Your task to perform on an android device: allow cookies in the chrome app Image 0: 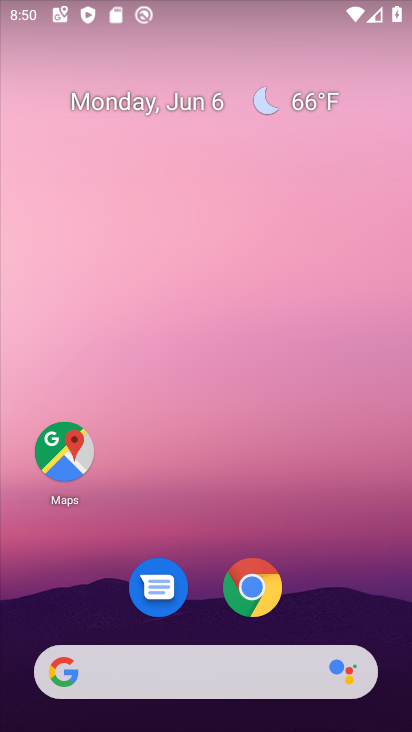
Step 0: click (247, 611)
Your task to perform on an android device: allow cookies in the chrome app Image 1: 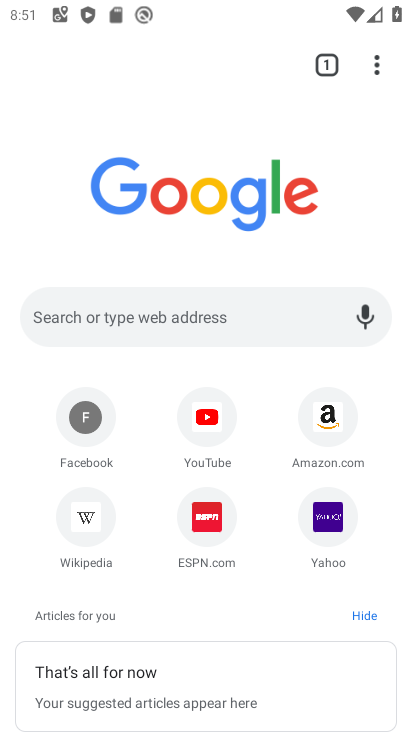
Step 1: drag from (377, 71) to (181, 538)
Your task to perform on an android device: allow cookies in the chrome app Image 2: 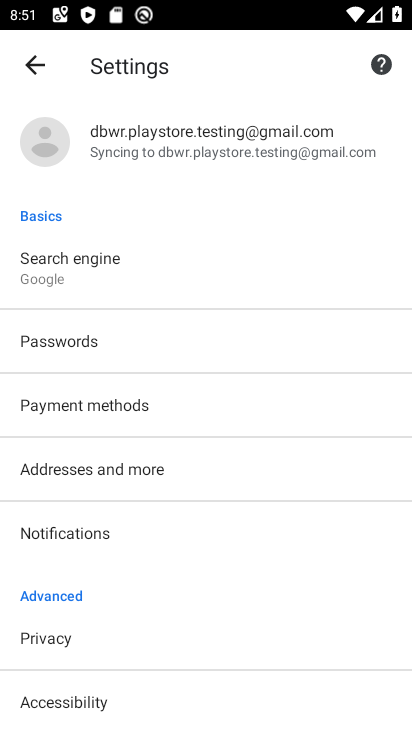
Step 2: drag from (108, 587) to (259, 188)
Your task to perform on an android device: allow cookies in the chrome app Image 3: 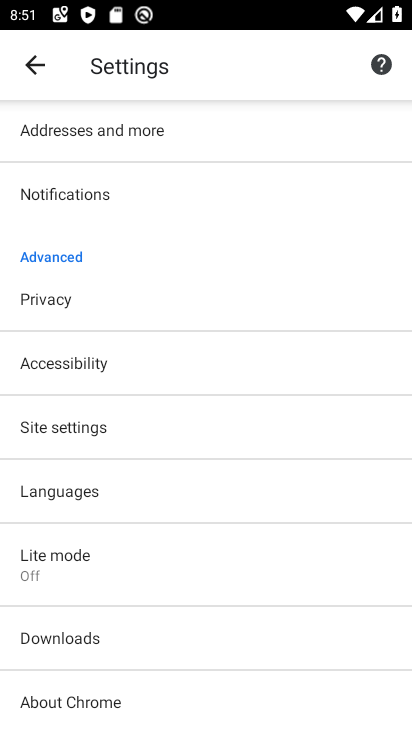
Step 3: click (140, 430)
Your task to perform on an android device: allow cookies in the chrome app Image 4: 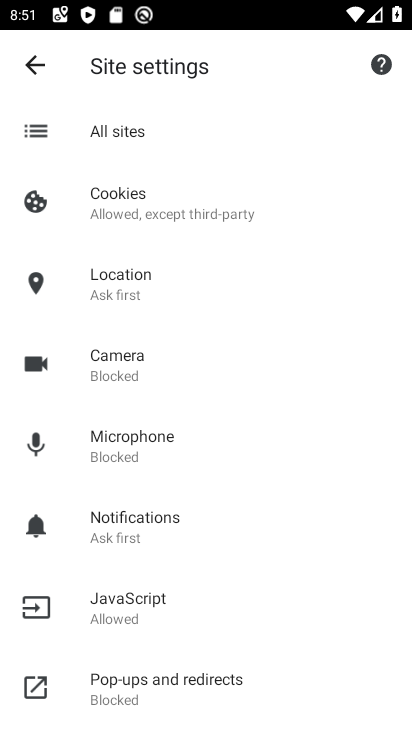
Step 4: click (211, 204)
Your task to perform on an android device: allow cookies in the chrome app Image 5: 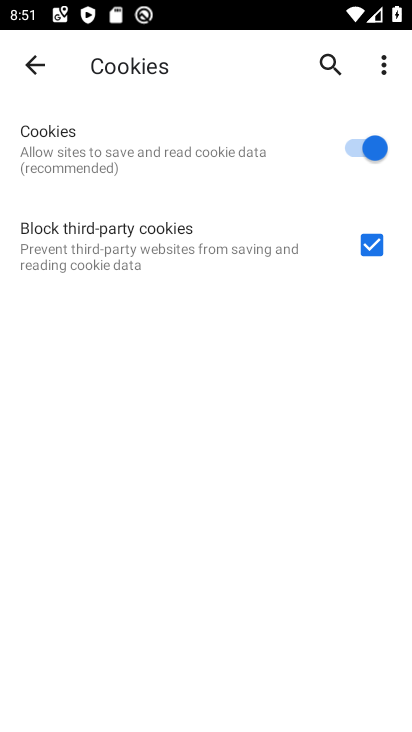
Step 5: task complete